Your task to perform on an android device: search for starred emails in the gmail app Image 0: 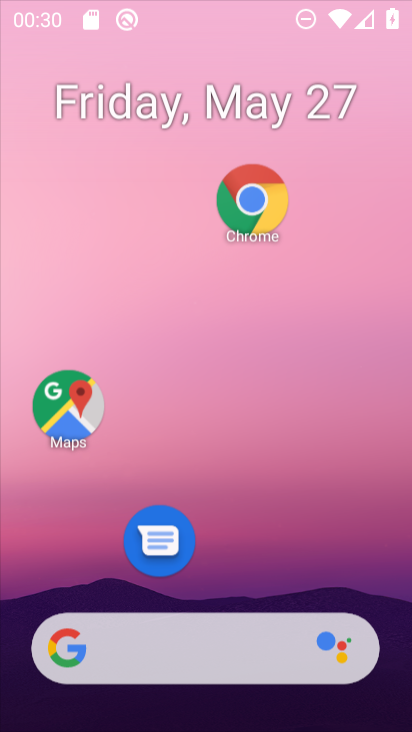
Step 0: click (252, 125)
Your task to perform on an android device: search for starred emails in the gmail app Image 1: 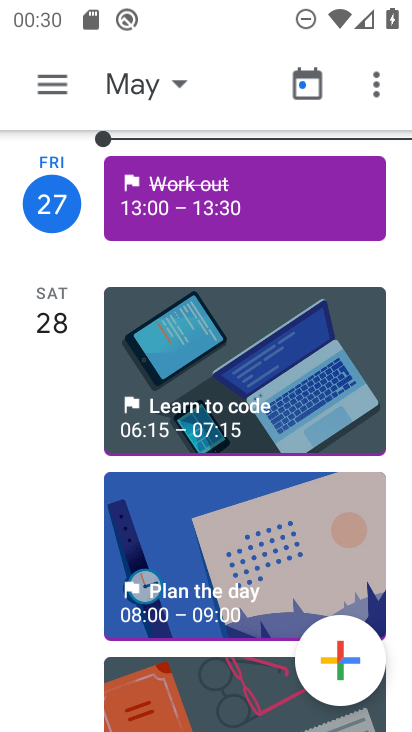
Step 1: press home button
Your task to perform on an android device: search for starred emails in the gmail app Image 2: 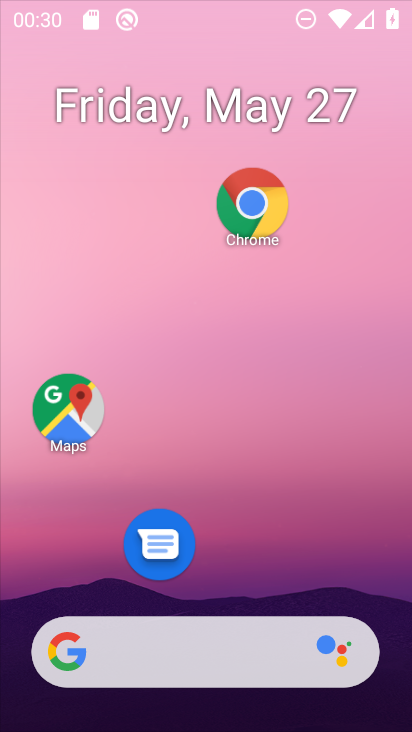
Step 2: drag from (202, 678) to (263, 65)
Your task to perform on an android device: search for starred emails in the gmail app Image 3: 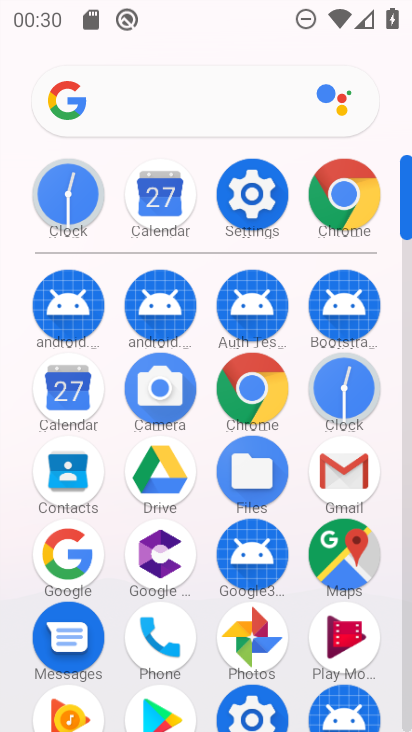
Step 3: click (342, 471)
Your task to perform on an android device: search for starred emails in the gmail app Image 4: 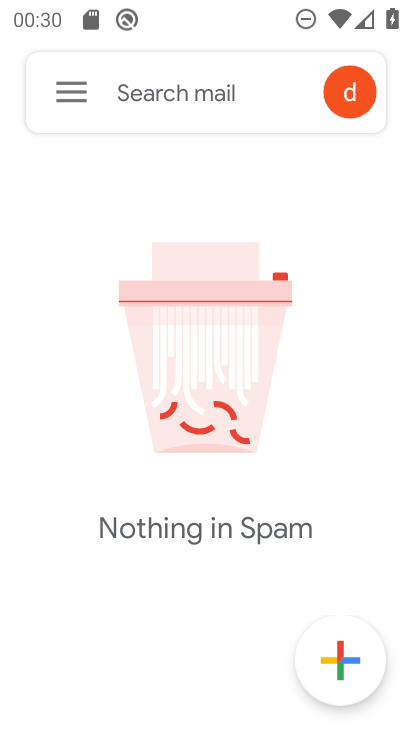
Step 4: click (63, 93)
Your task to perform on an android device: search for starred emails in the gmail app Image 5: 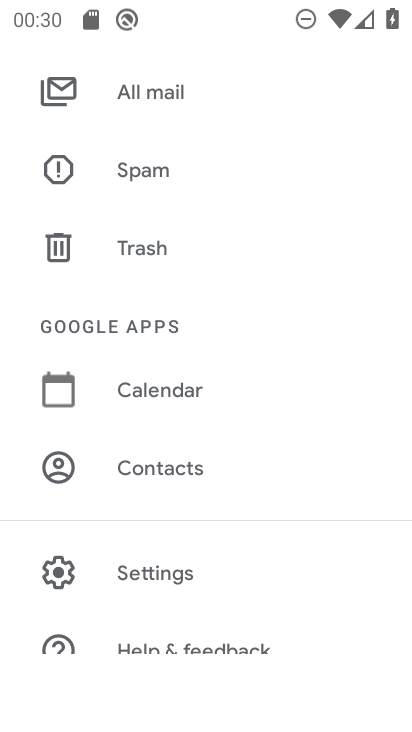
Step 5: drag from (182, 217) to (262, 706)
Your task to perform on an android device: search for starred emails in the gmail app Image 6: 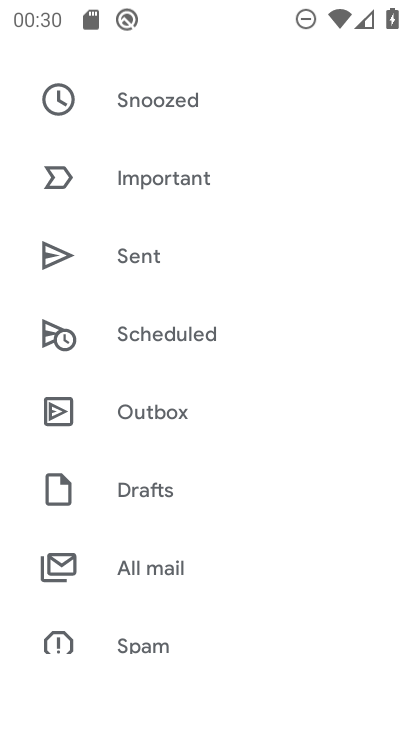
Step 6: drag from (175, 105) to (250, 621)
Your task to perform on an android device: search for starred emails in the gmail app Image 7: 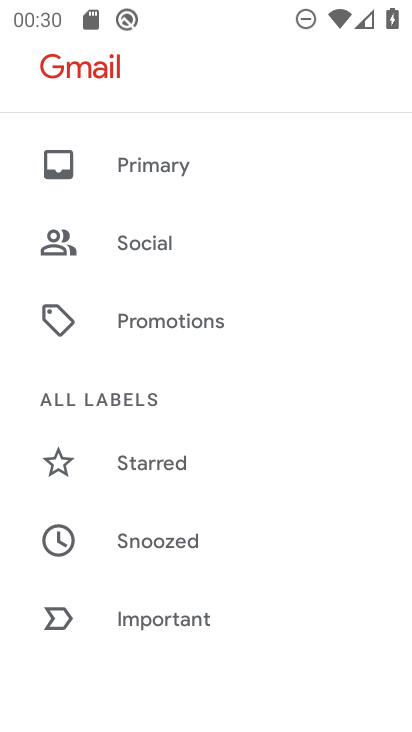
Step 7: click (170, 485)
Your task to perform on an android device: search for starred emails in the gmail app Image 8: 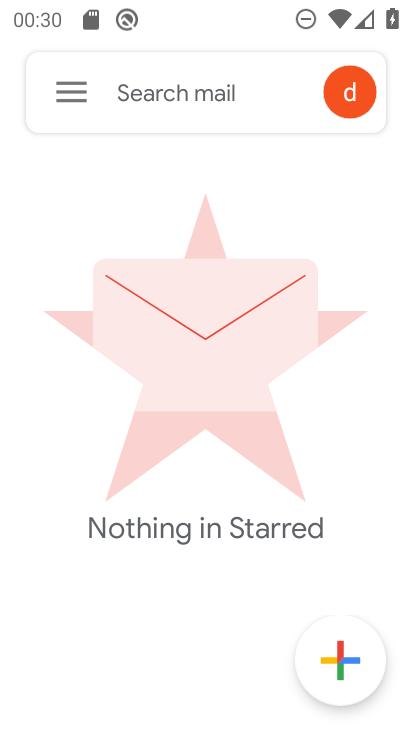
Step 8: task complete